Your task to perform on an android device: How big is the universe? Image 0: 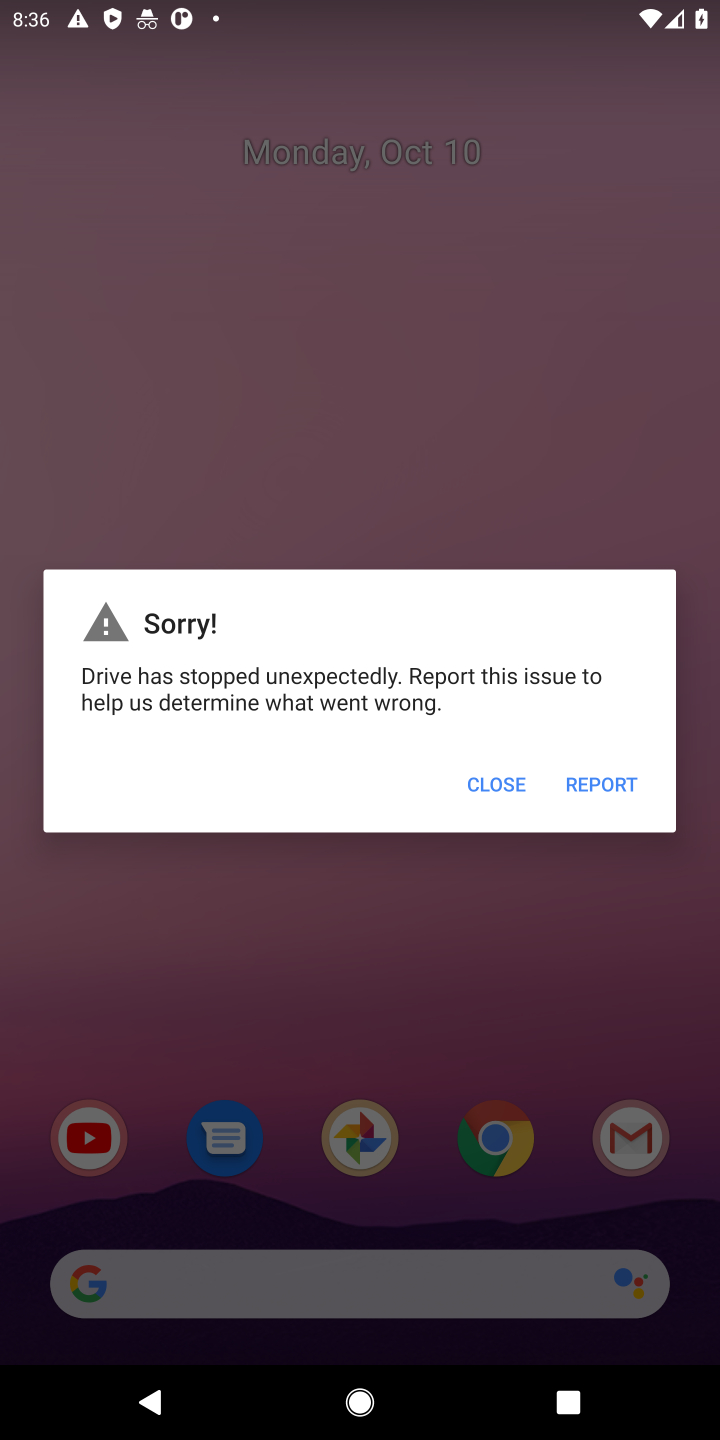
Step 0: press home button
Your task to perform on an android device: How big is the universe? Image 1: 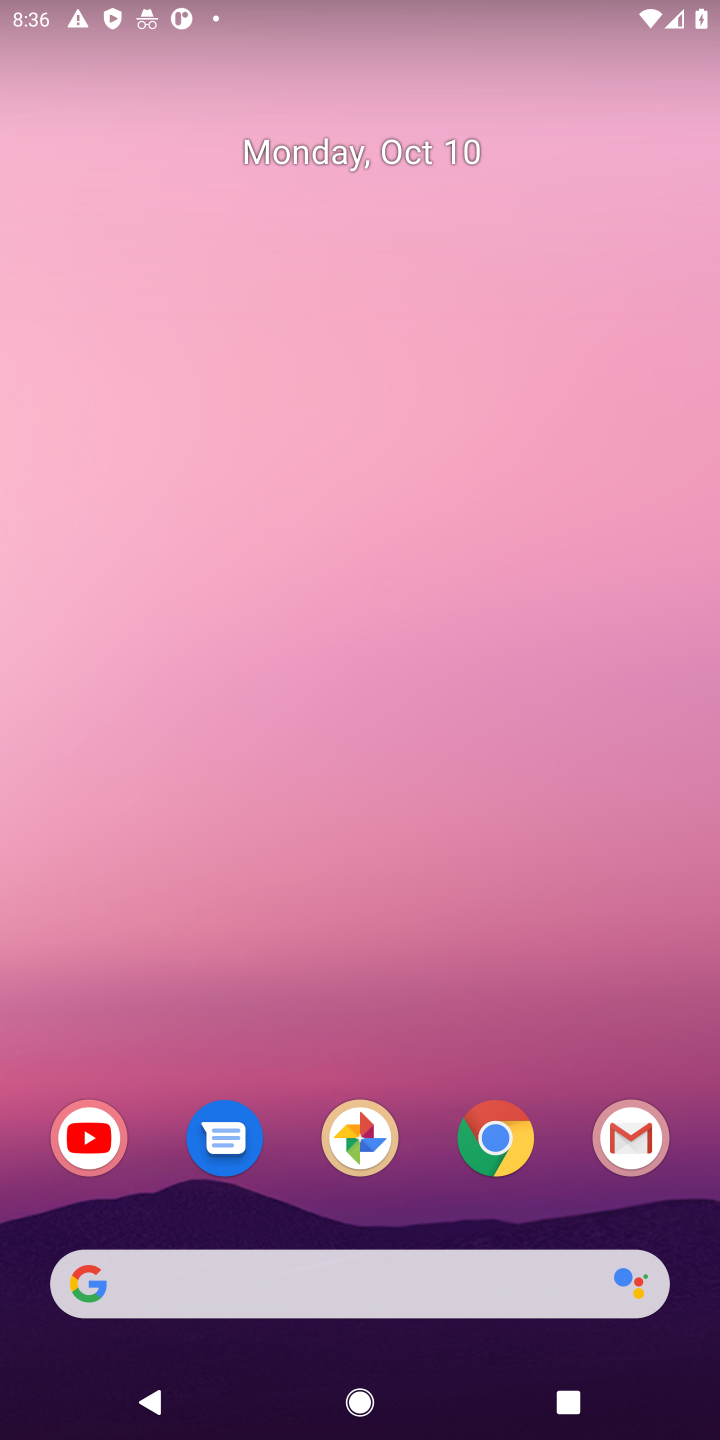
Step 1: click (497, 1134)
Your task to perform on an android device: How big is the universe? Image 2: 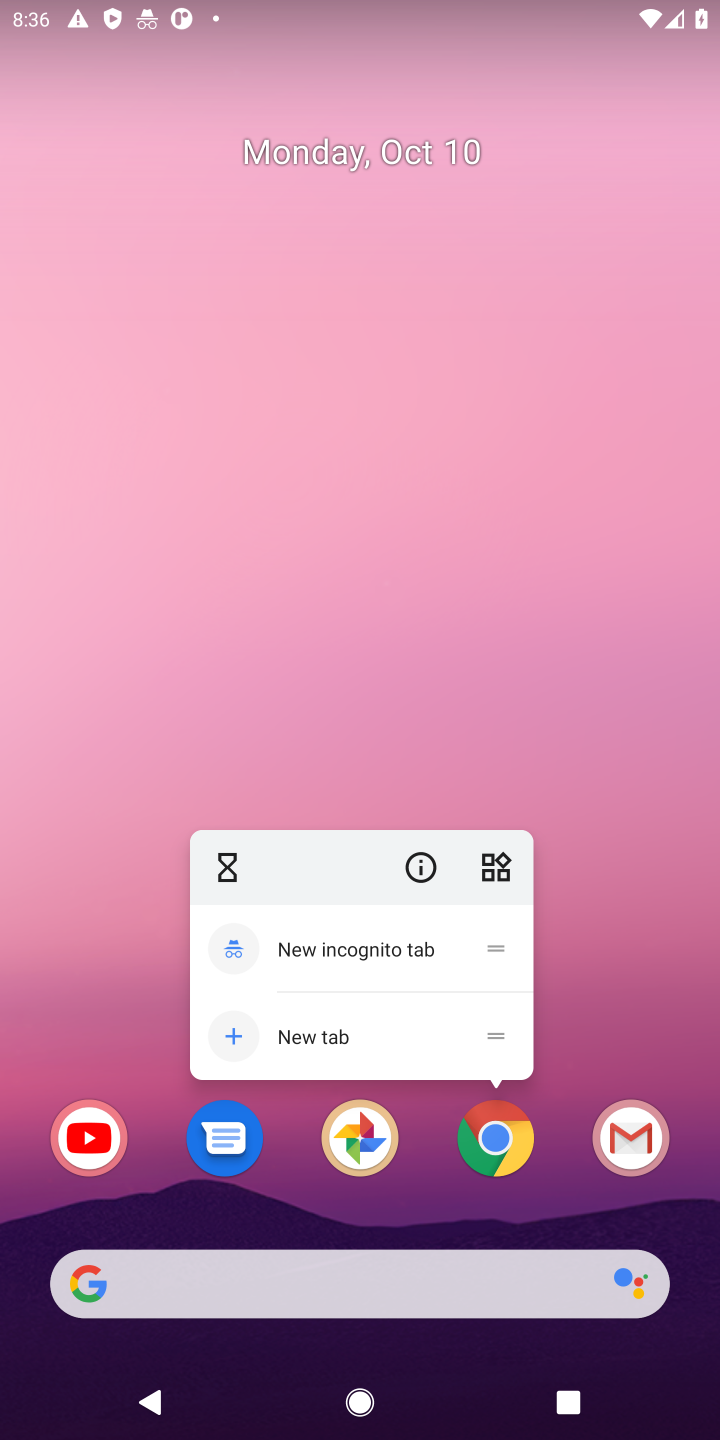
Step 2: click (502, 1137)
Your task to perform on an android device: How big is the universe? Image 3: 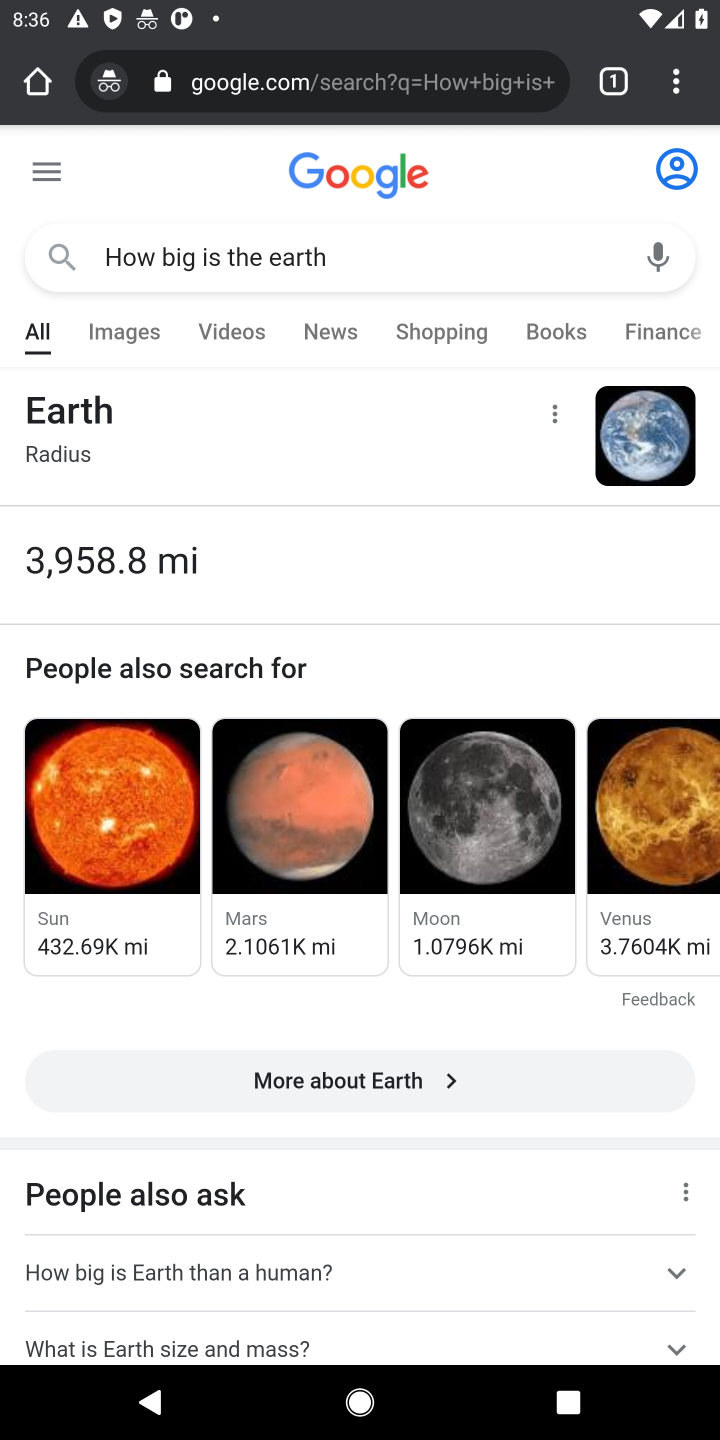
Step 3: click (431, 82)
Your task to perform on an android device: How big is the universe? Image 4: 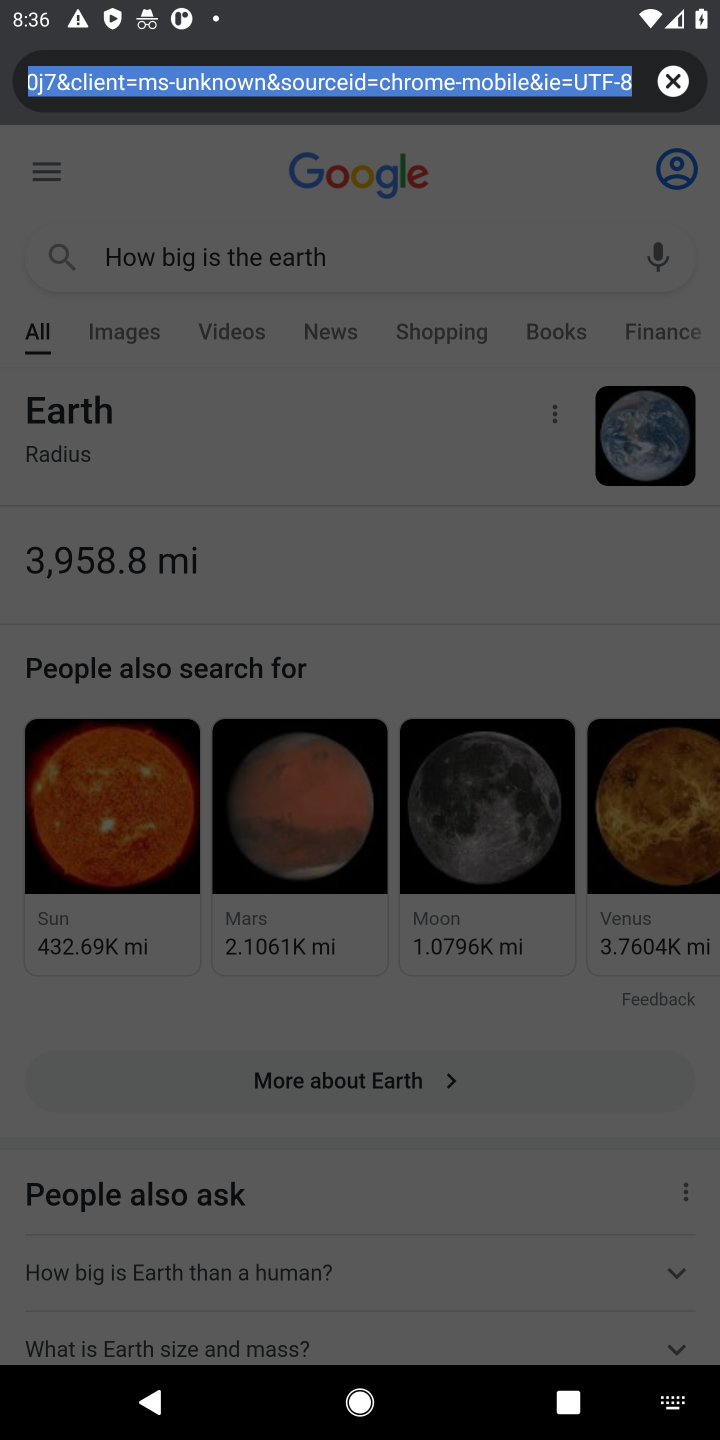
Step 4: click (677, 83)
Your task to perform on an android device: How big is the universe? Image 5: 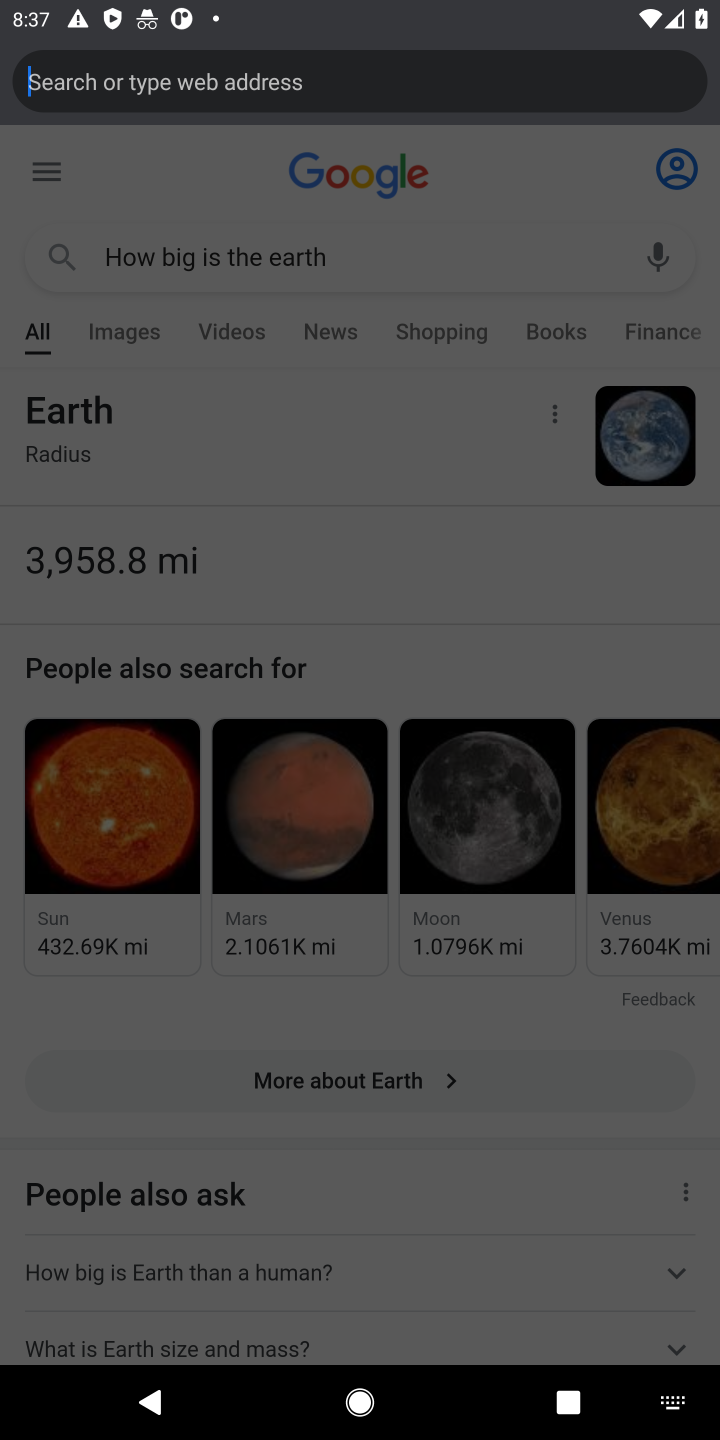
Step 5: type "How big is the universe"
Your task to perform on an android device: How big is the universe? Image 6: 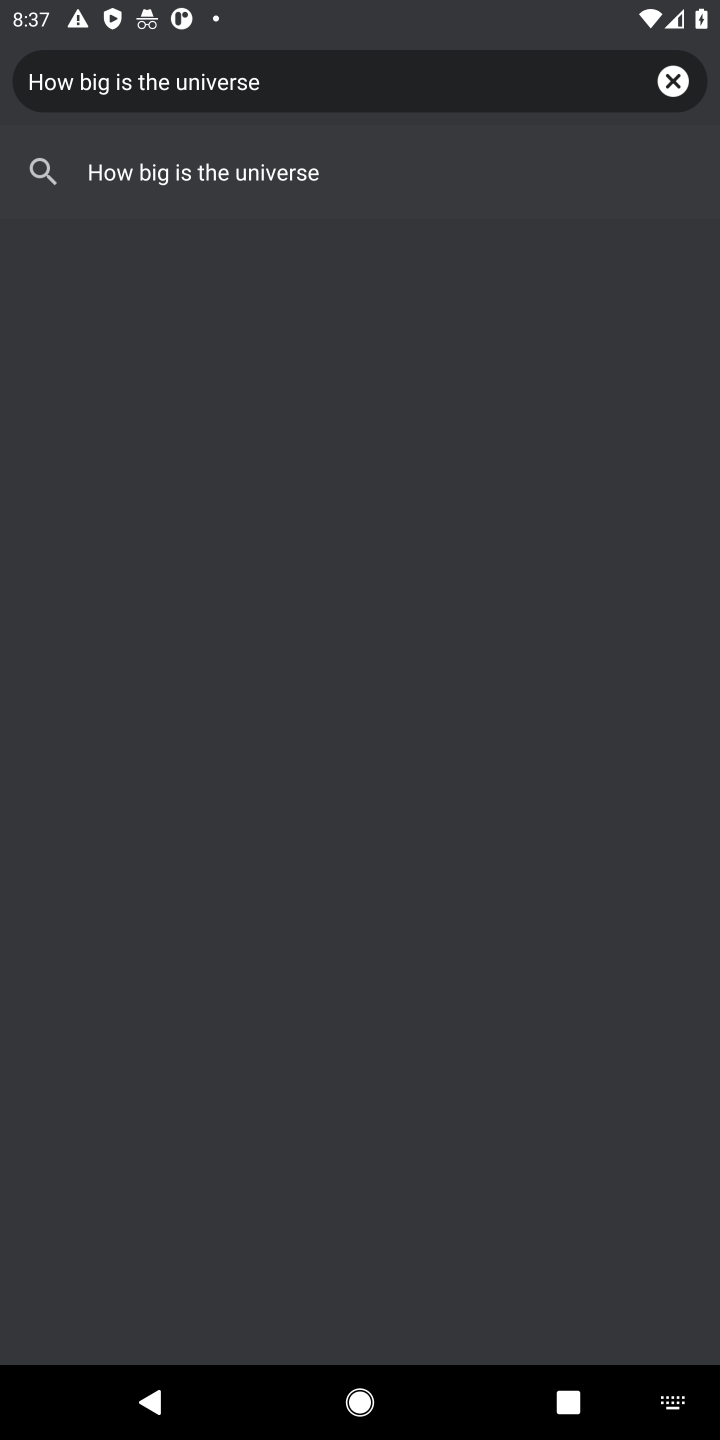
Step 6: click (308, 183)
Your task to perform on an android device: How big is the universe? Image 7: 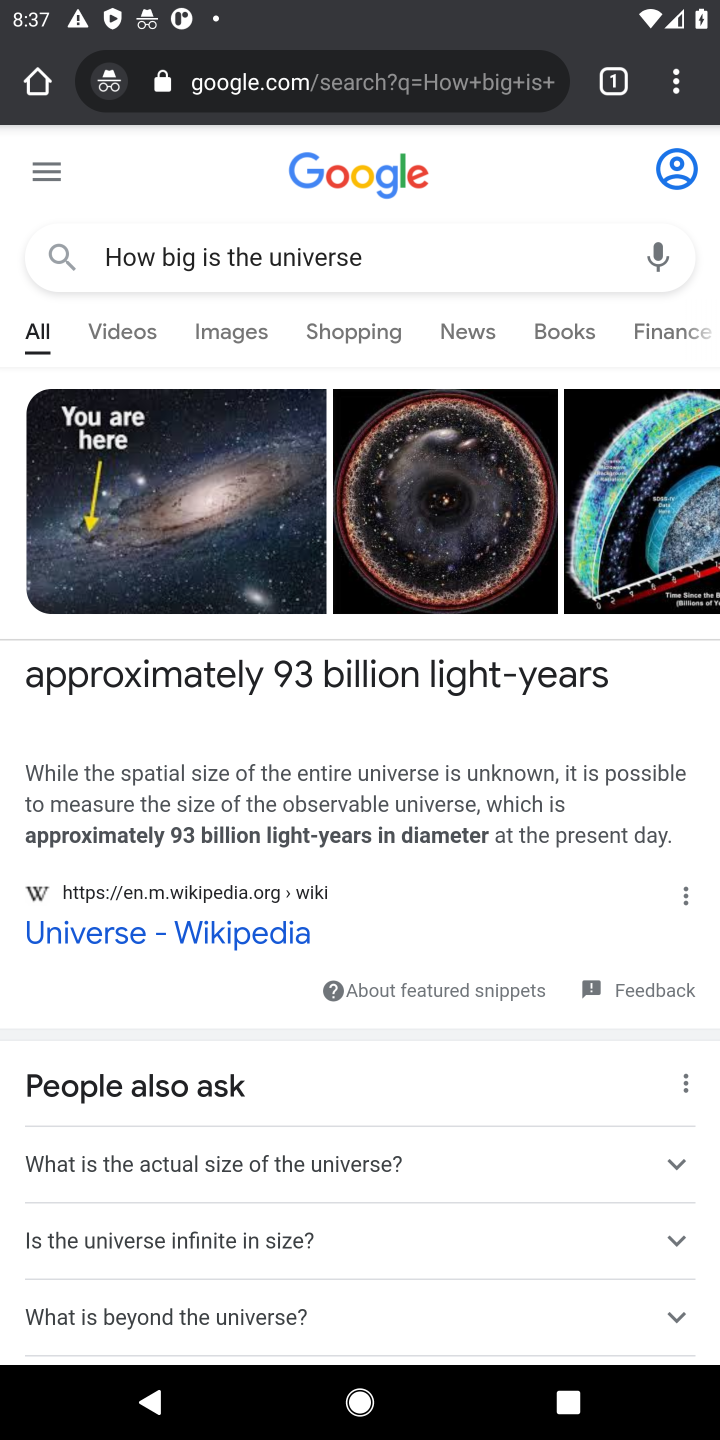
Step 7: task complete